Your task to perform on an android device: When is my next appointment? Image 0: 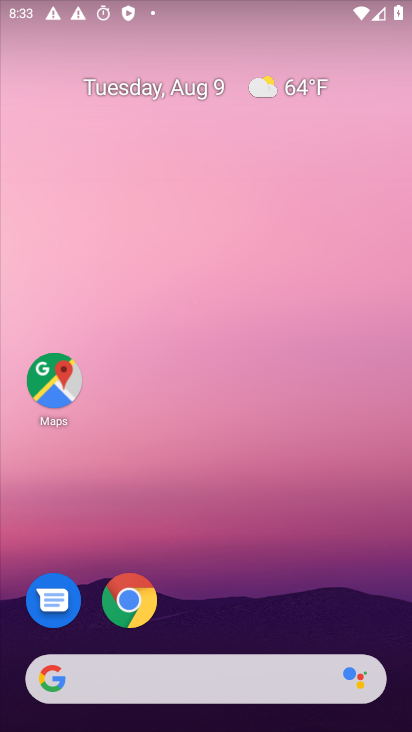
Step 0: press home button
Your task to perform on an android device: When is my next appointment? Image 1: 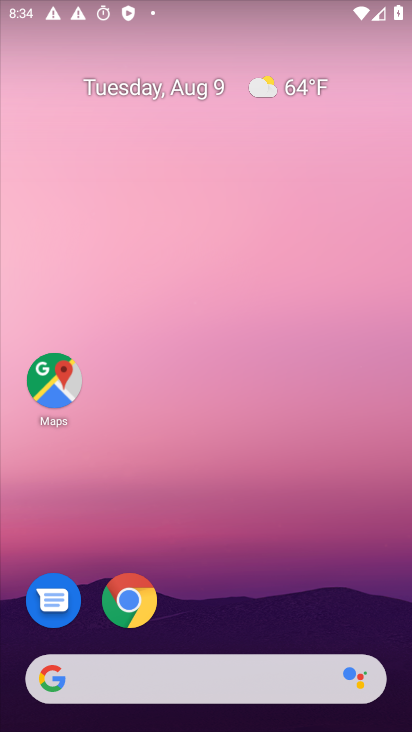
Step 1: drag from (243, 622) to (331, 0)
Your task to perform on an android device: When is my next appointment? Image 2: 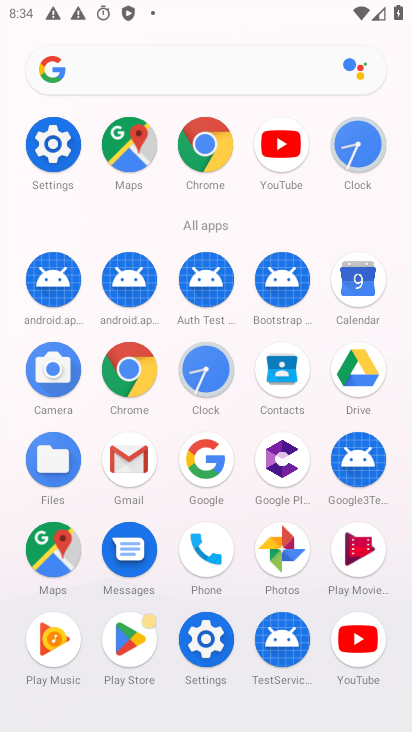
Step 2: click (362, 280)
Your task to perform on an android device: When is my next appointment? Image 3: 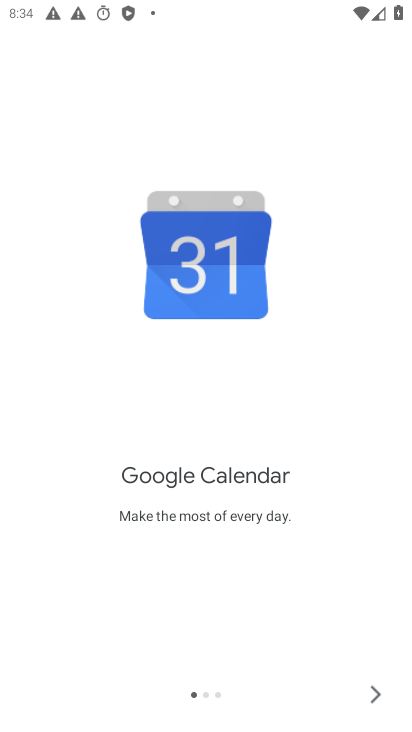
Step 3: click (371, 695)
Your task to perform on an android device: When is my next appointment? Image 4: 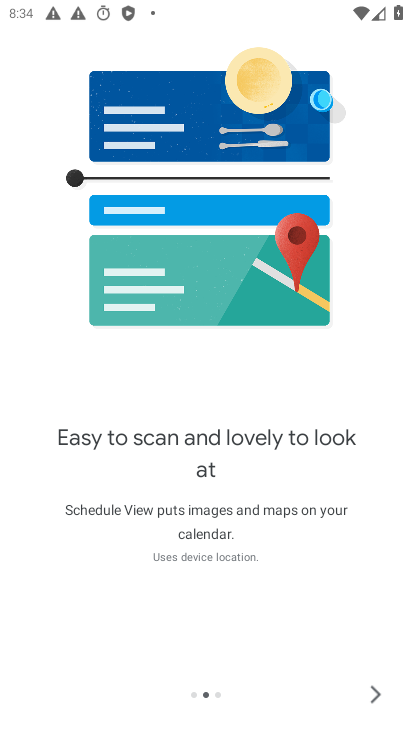
Step 4: click (370, 695)
Your task to perform on an android device: When is my next appointment? Image 5: 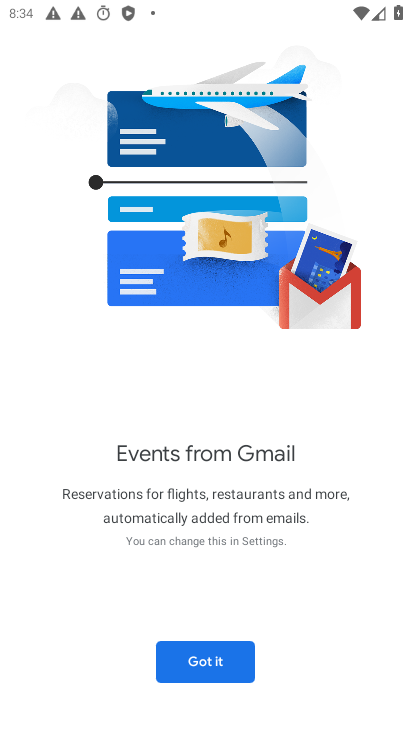
Step 5: click (229, 662)
Your task to perform on an android device: When is my next appointment? Image 6: 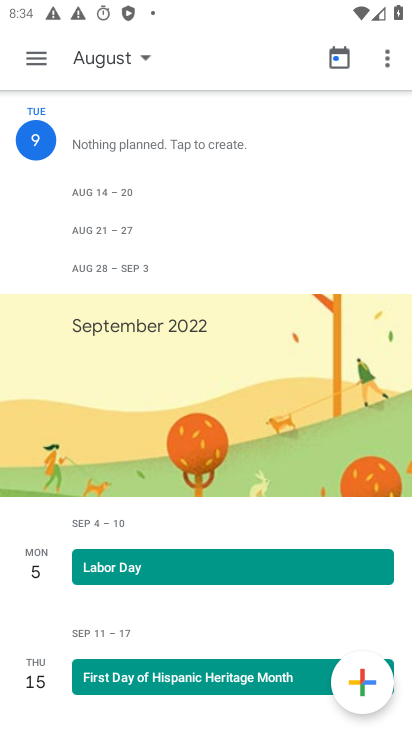
Step 6: click (32, 61)
Your task to perform on an android device: When is my next appointment? Image 7: 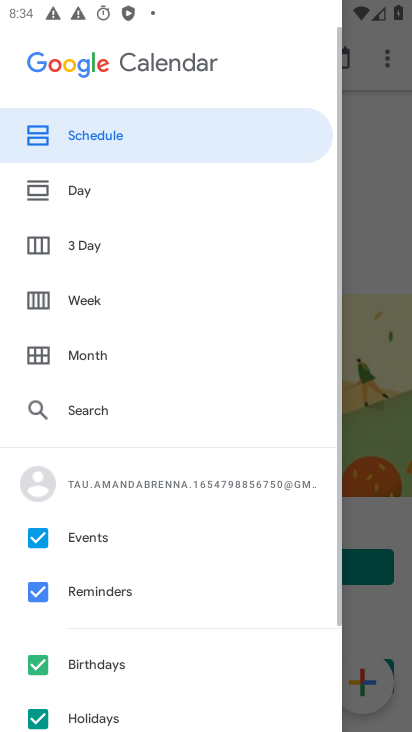
Step 7: click (116, 135)
Your task to perform on an android device: When is my next appointment? Image 8: 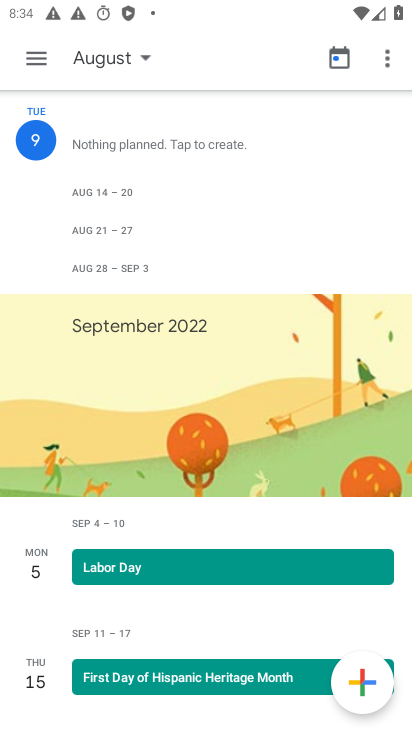
Step 8: task complete